Your task to perform on an android device: Open settings on Google Maps Image 0: 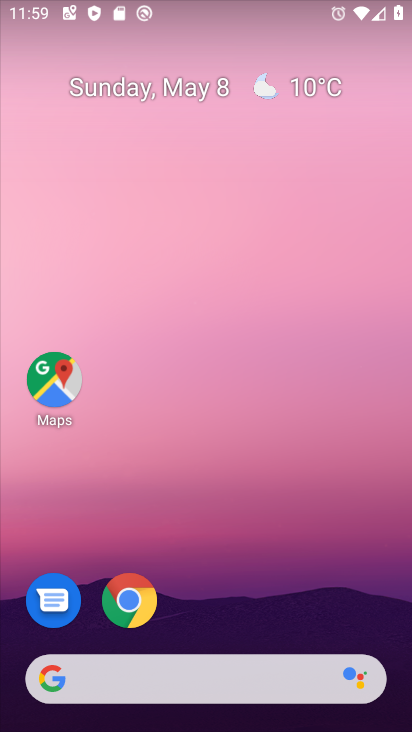
Step 0: drag from (164, 640) to (182, 267)
Your task to perform on an android device: Open settings on Google Maps Image 1: 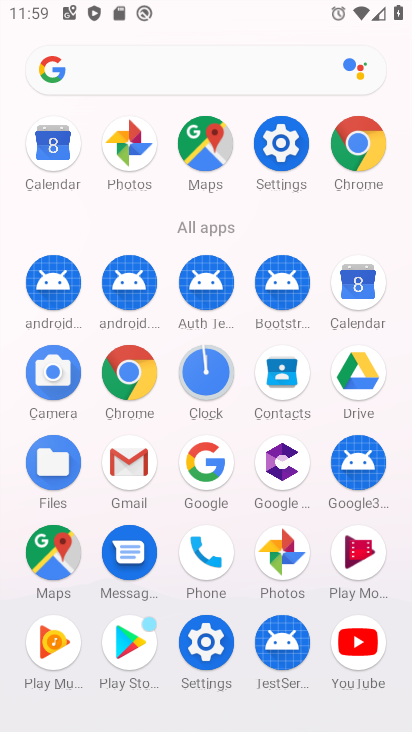
Step 1: click (204, 134)
Your task to perform on an android device: Open settings on Google Maps Image 2: 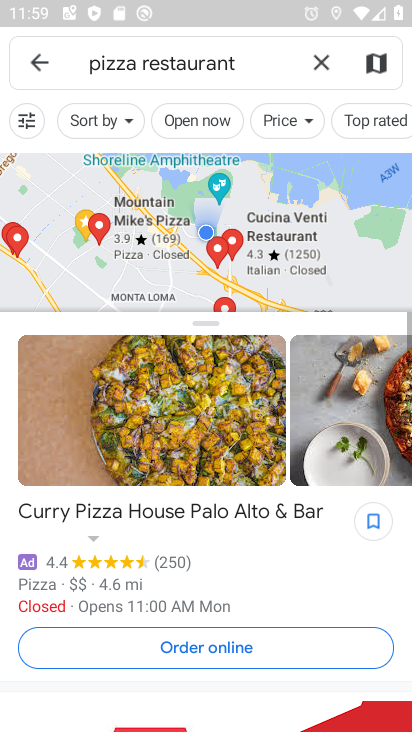
Step 2: click (30, 57)
Your task to perform on an android device: Open settings on Google Maps Image 3: 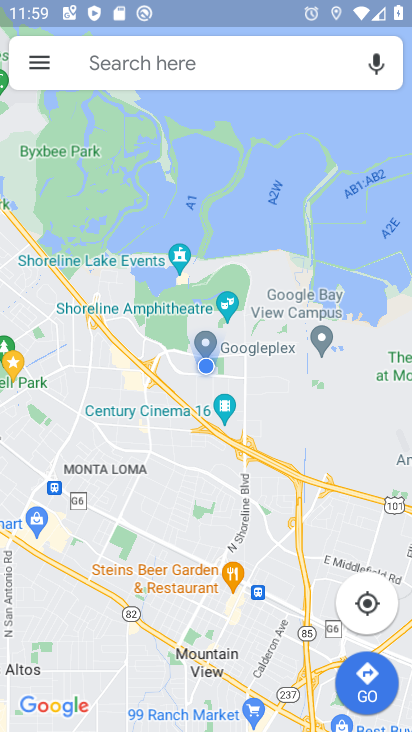
Step 3: click (38, 62)
Your task to perform on an android device: Open settings on Google Maps Image 4: 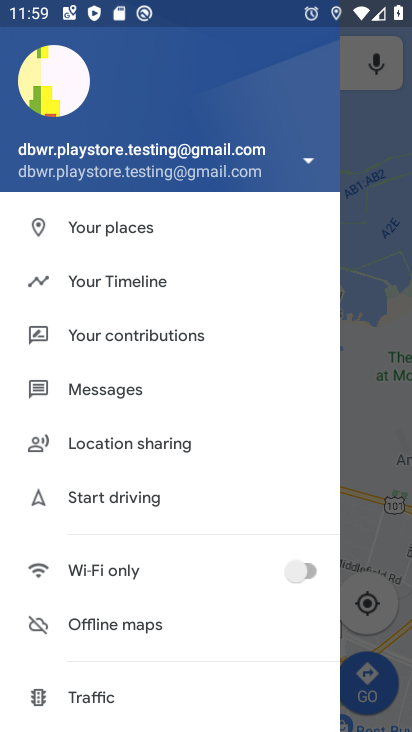
Step 4: drag from (153, 537) to (141, 220)
Your task to perform on an android device: Open settings on Google Maps Image 5: 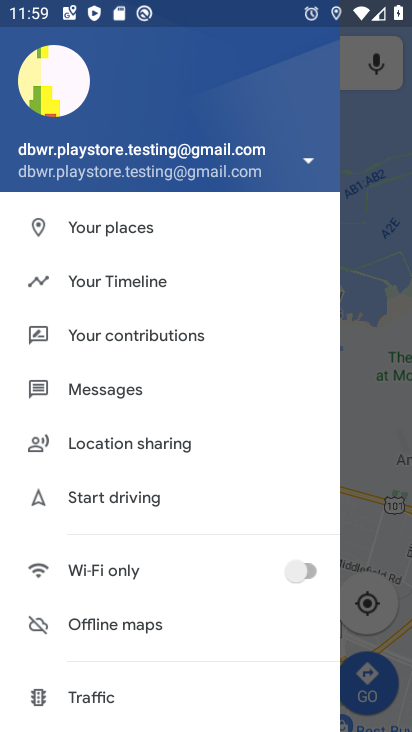
Step 5: drag from (111, 636) to (175, 188)
Your task to perform on an android device: Open settings on Google Maps Image 6: 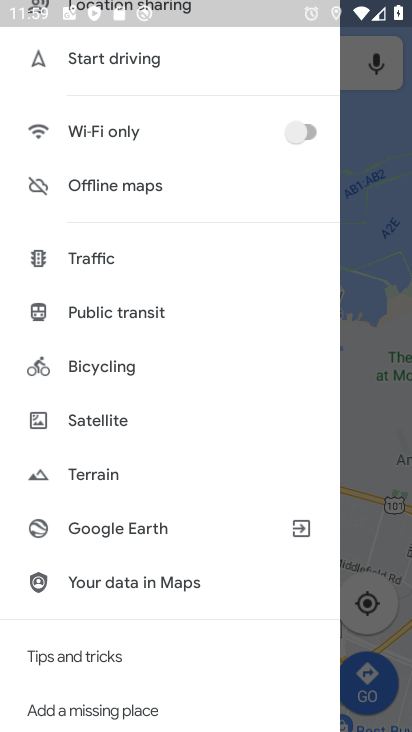
Step 6: drag from (163, 604) to (210, 176)
Your task to perform on an android device: Open settings on Google Maps Image 7: 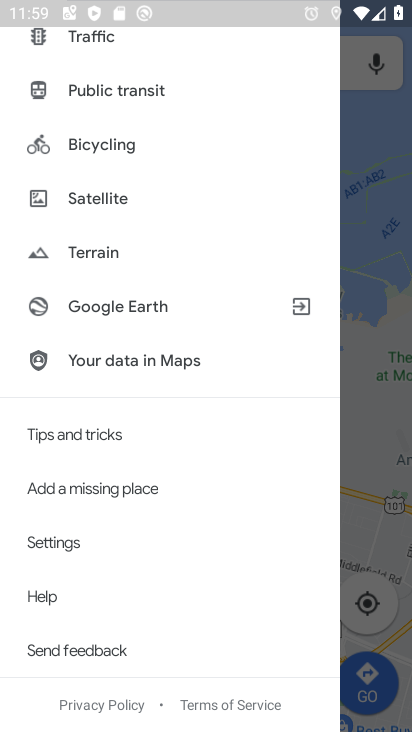
Step 7: click (39, 548)
Your task to perform on an android device: Open settings on Google Maps Image 8: 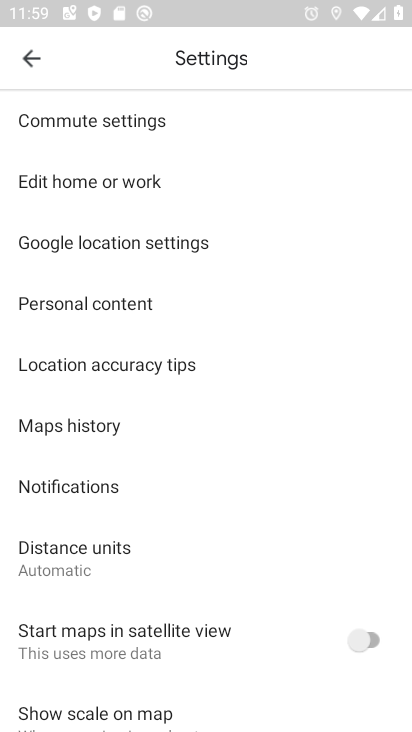
Step 8: task complete